Your task to perform on an android device: Go to privacy settings Image 0: 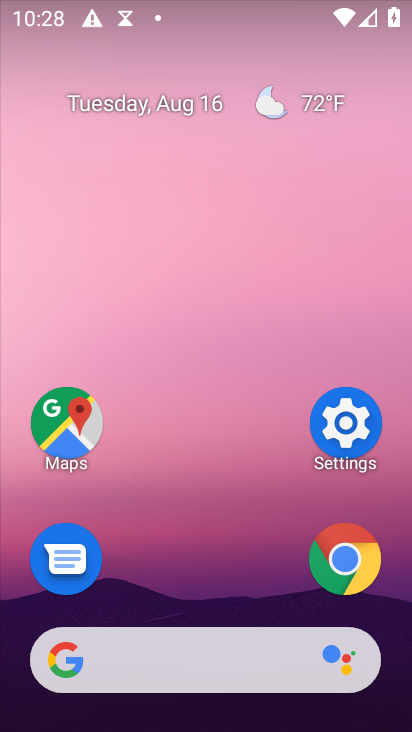
Step 0: click (347, 424)
Your task to perform on an android device: Go to privacy settings Image 1: 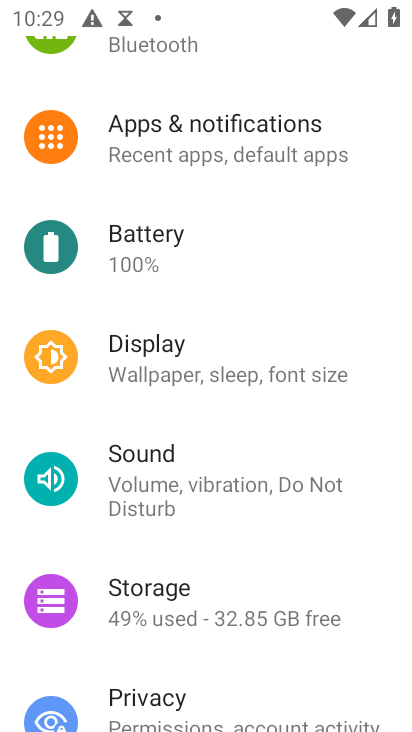
Step 1: drag from (224, 665) to (275, 162)
Your task to perform on an android device: Go to privacy settings Image 2: 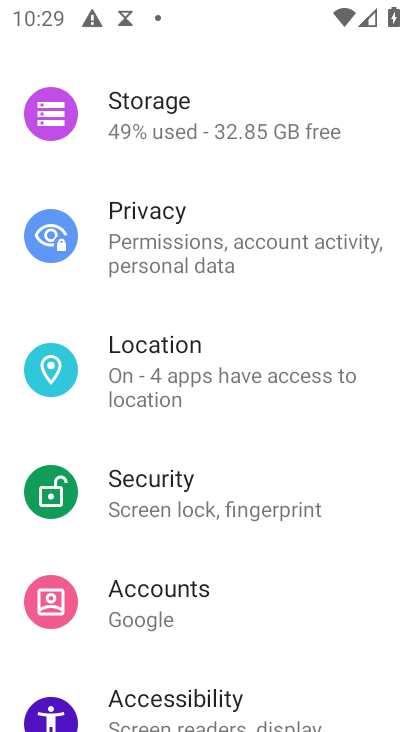
Step 2: drag from (285, 77) to (231, 487)
Your task to perform on an android device: Go to privacy settings Image 3: 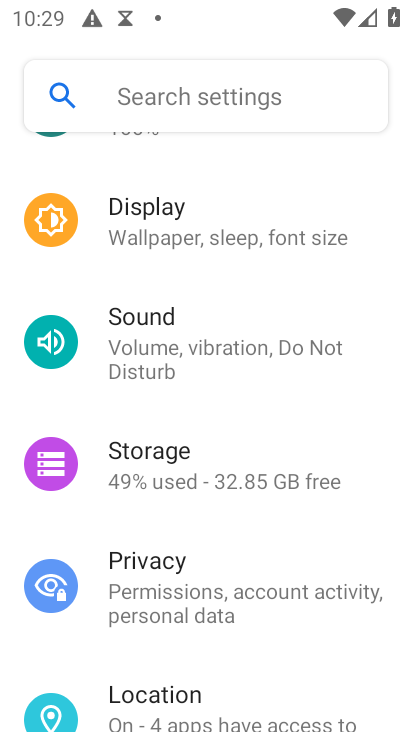
Step 3: click (143, 567)
Your task to perform on an android device: Go to privacy settings Image 4: 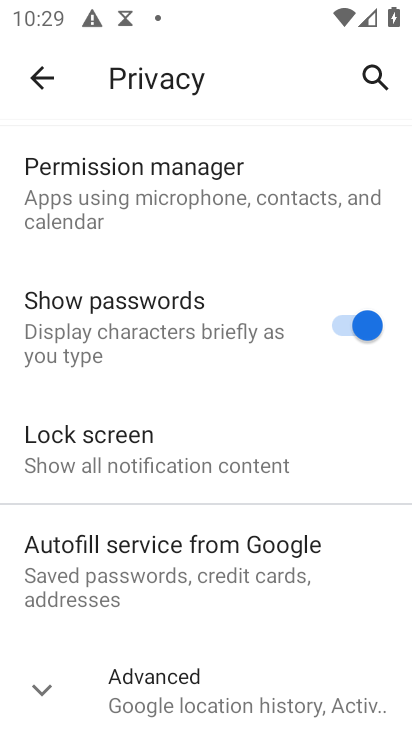
Step 4: task complete